Your task to perform on an android device: Empty the shopping cart on target.com. Add "duracell triple a" to the cart on target.com Image 0: 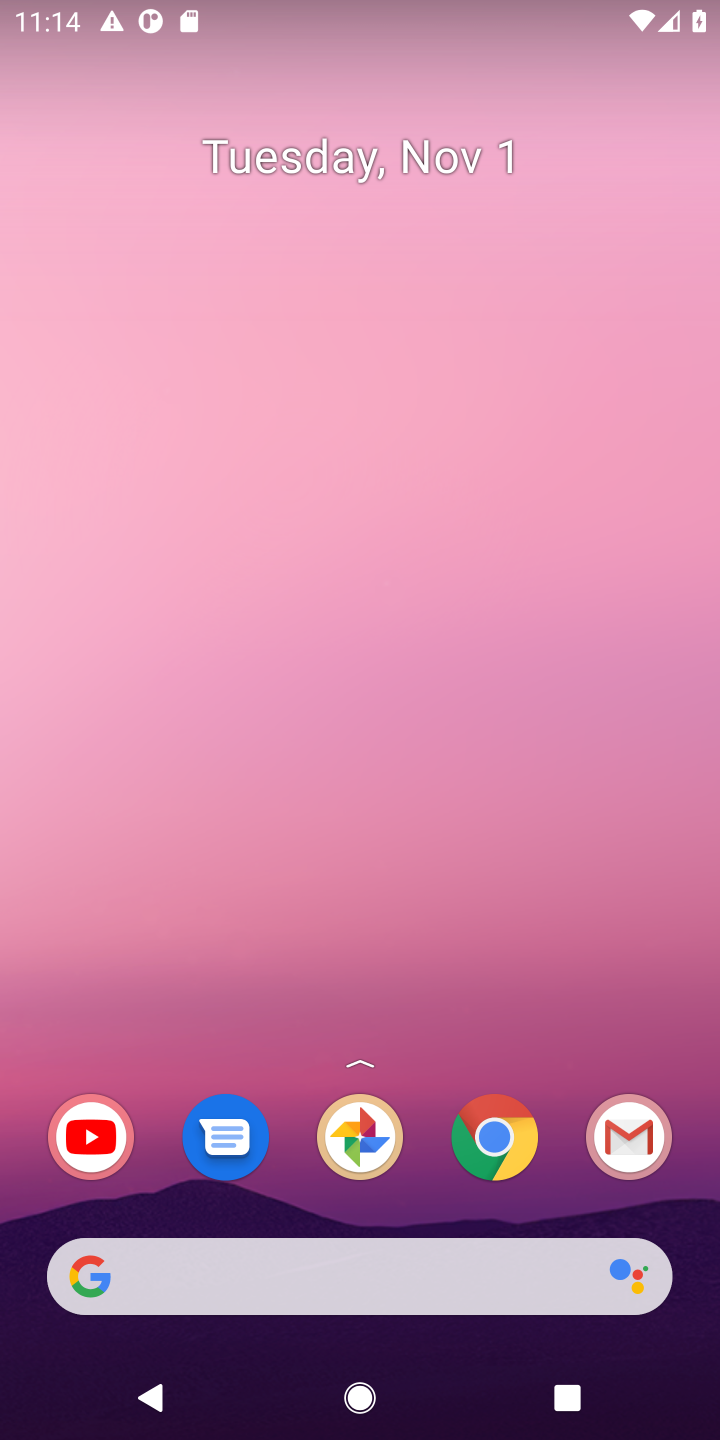
Step 0: drag from (299, 1137) to (235, 159)
Your task to perform on an android device: Empty the shopping cart on target.com. Add "duracell triple a" to the cart on target.com Image 1: 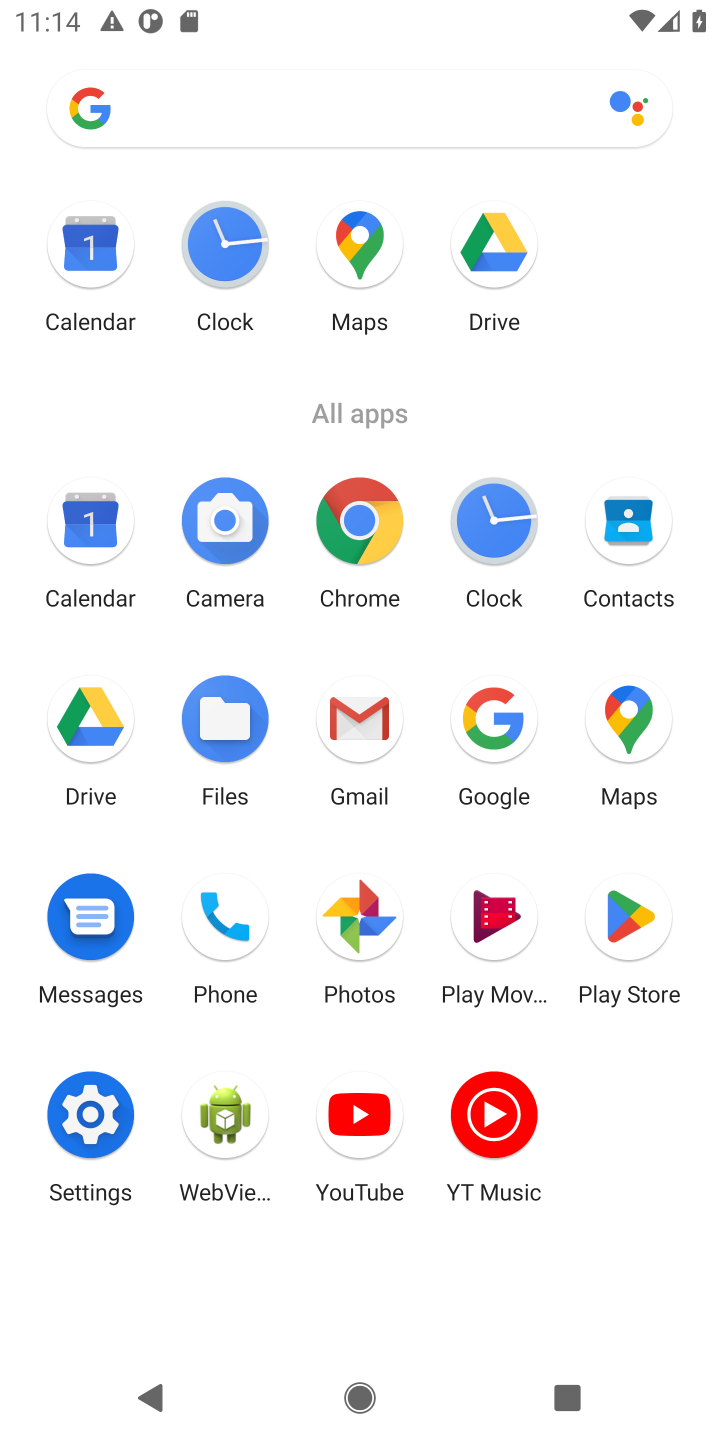
Step 1: click (491, 741)
Your task to perform on an android device: Empty the shopping cart on target.com. Add "duracell triple a" to the cart on target.com Image 2: 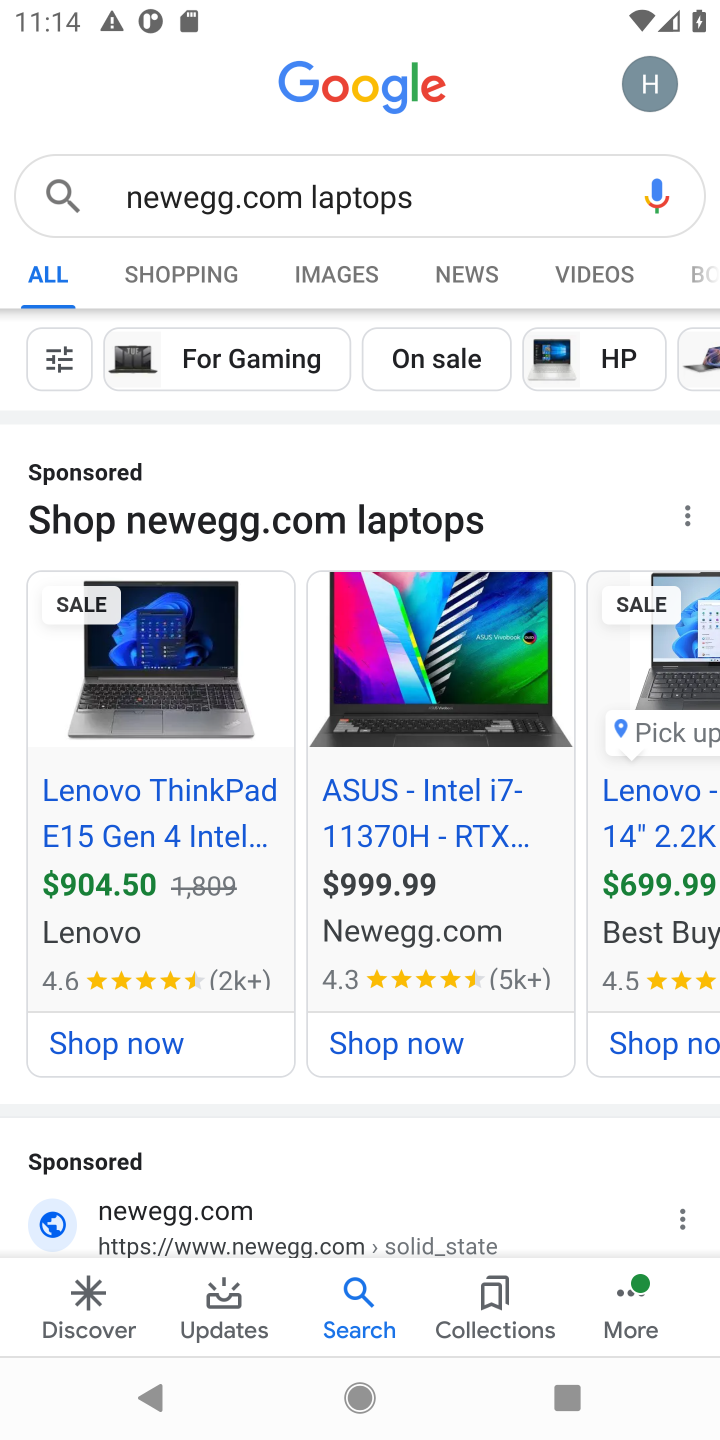
Step 2: click (418, 184)
Your task to perform on an android device: Empty the shopping cart on target.com. Add "duracell triple a" to the cart on target.com Image 3: 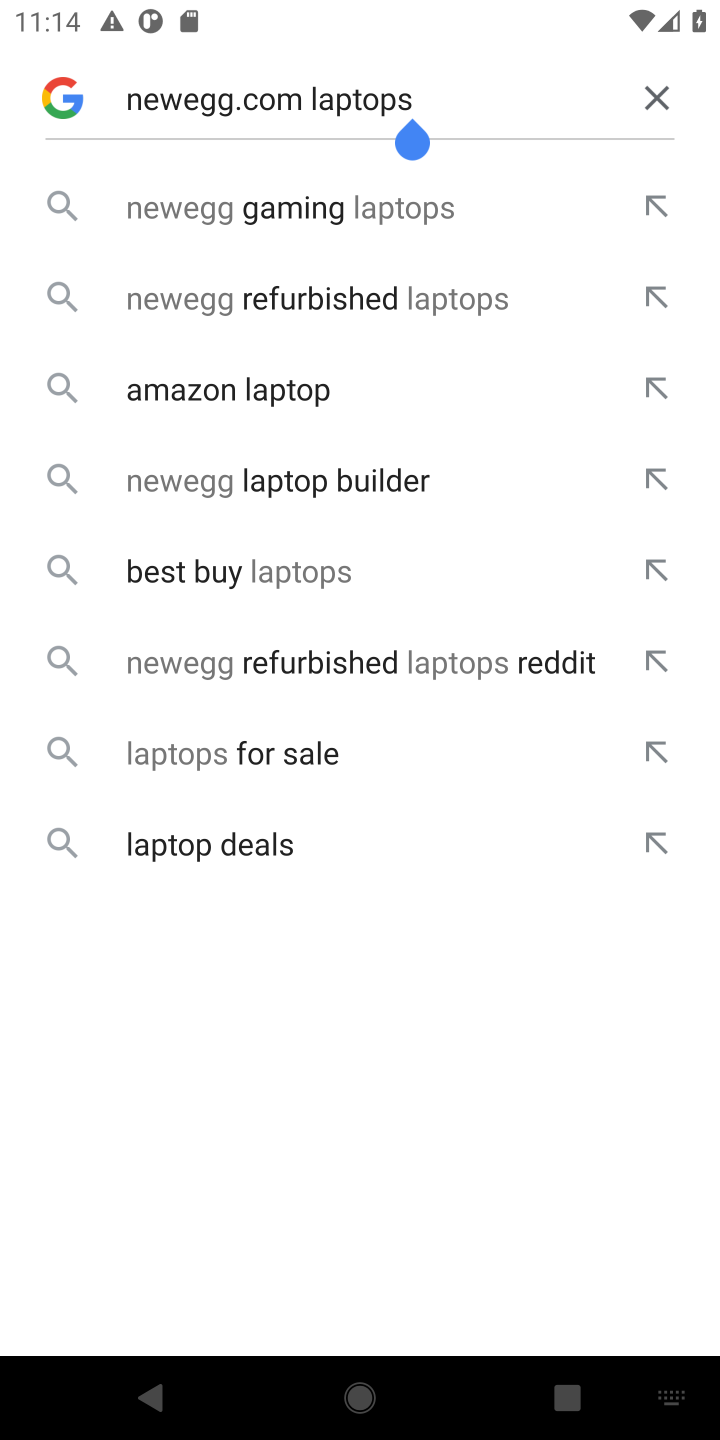
Step 3: click (638, 98)
Your task to perform on an android device: Empty the shopping cart on target.com. Add "duracell triple a" to the cart on target.com Image 4: 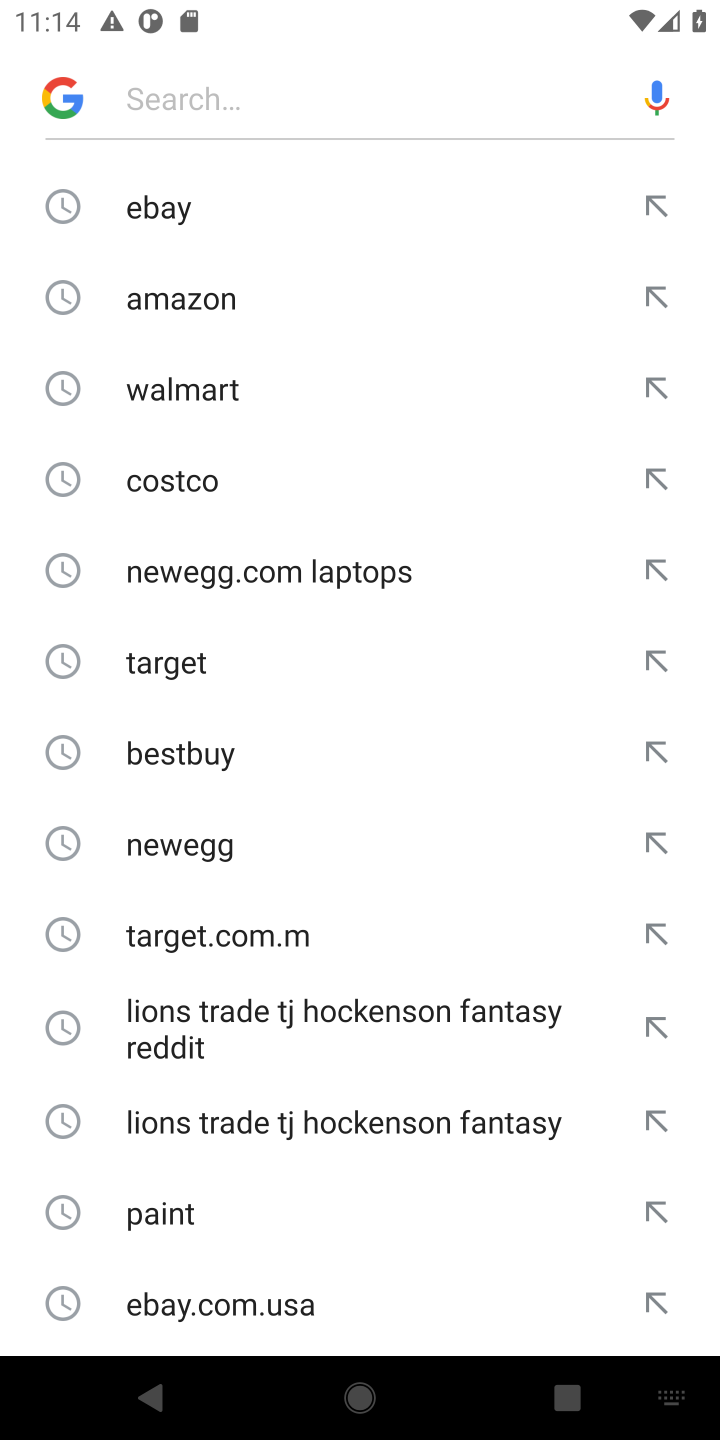
Step 4: click (142, 677)
Your task to perform on an android device: Empty the shopping cart on target.com. Add "duracell triple a" to the cart on target.com Image 5: 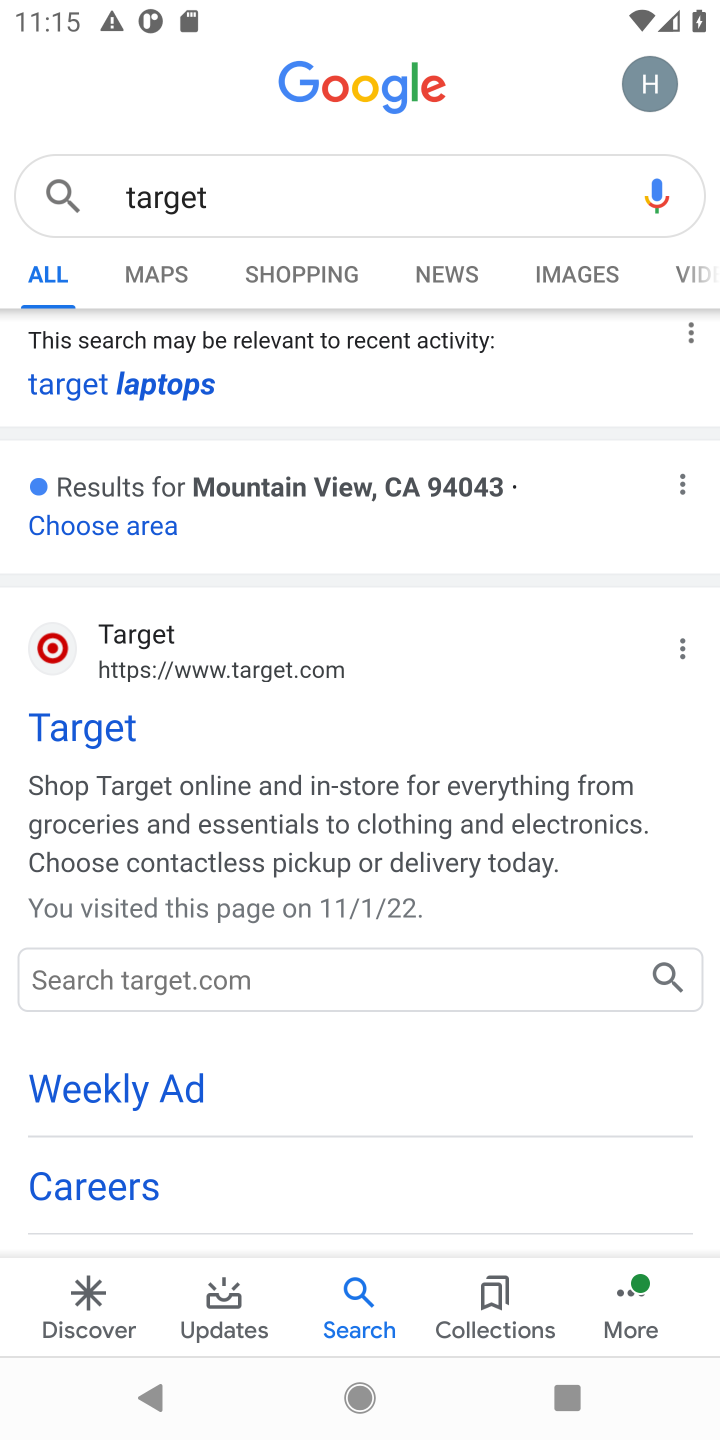
Step 5: click (80, 725)
Your task to perform on an android device: Empty the shopping cart on target.com. Add "duracell triple a" to the cart on target.com Image 6: 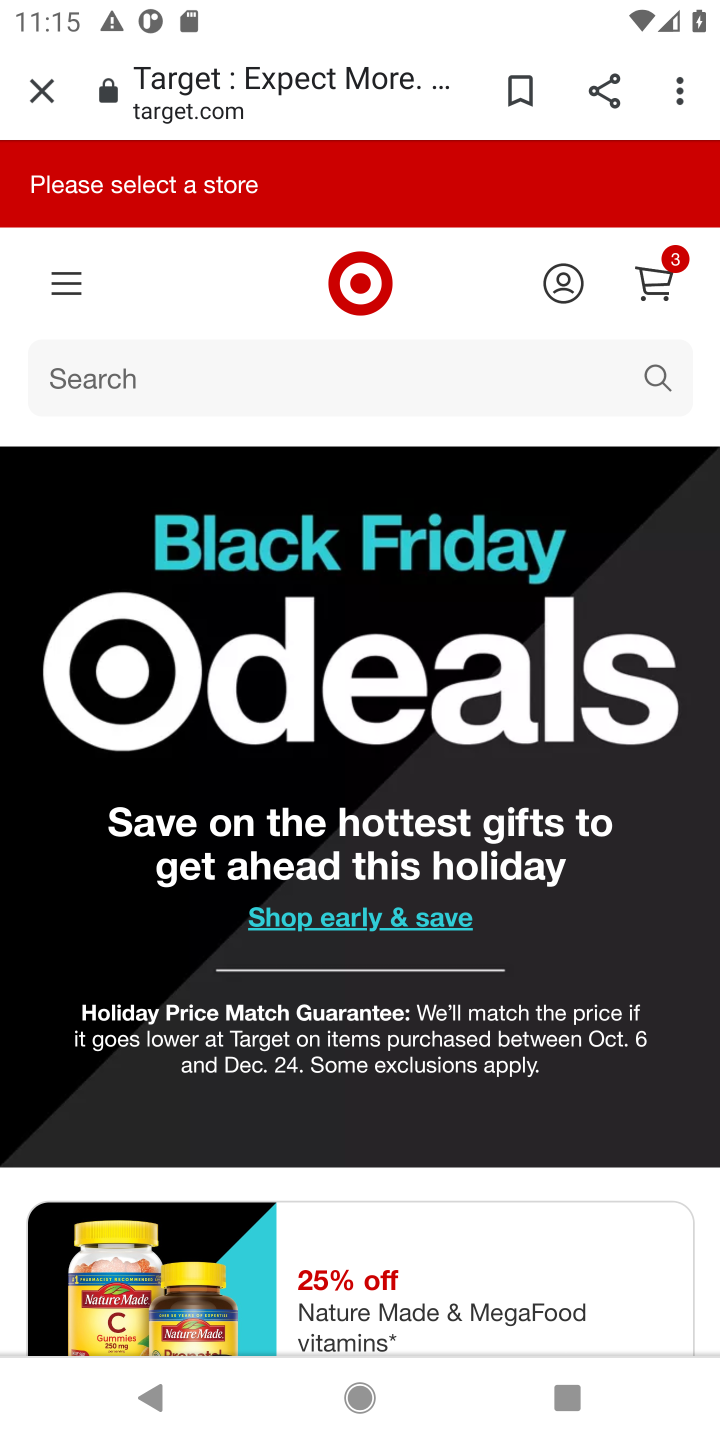
Step 6: click (350, 382)
Your task to perform on an android device: Empty the shopping cart on target.com. Add "duracell triple a" to the cart on target.com Image 7: 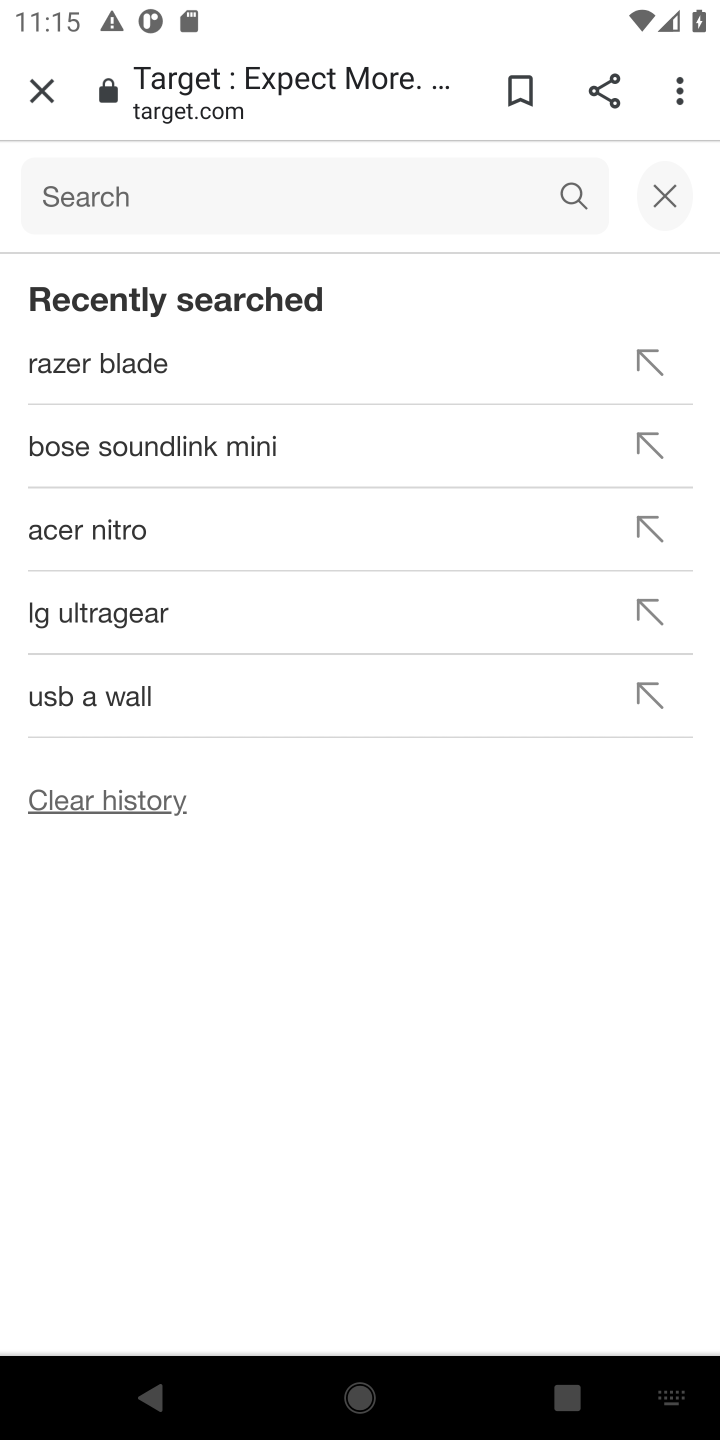
Step 7: type "duracell triple a""
Your task to perform on an android device: Empty the shopping cart on target.com. Add "duracell triple a" to the cart on target.com Image 8: 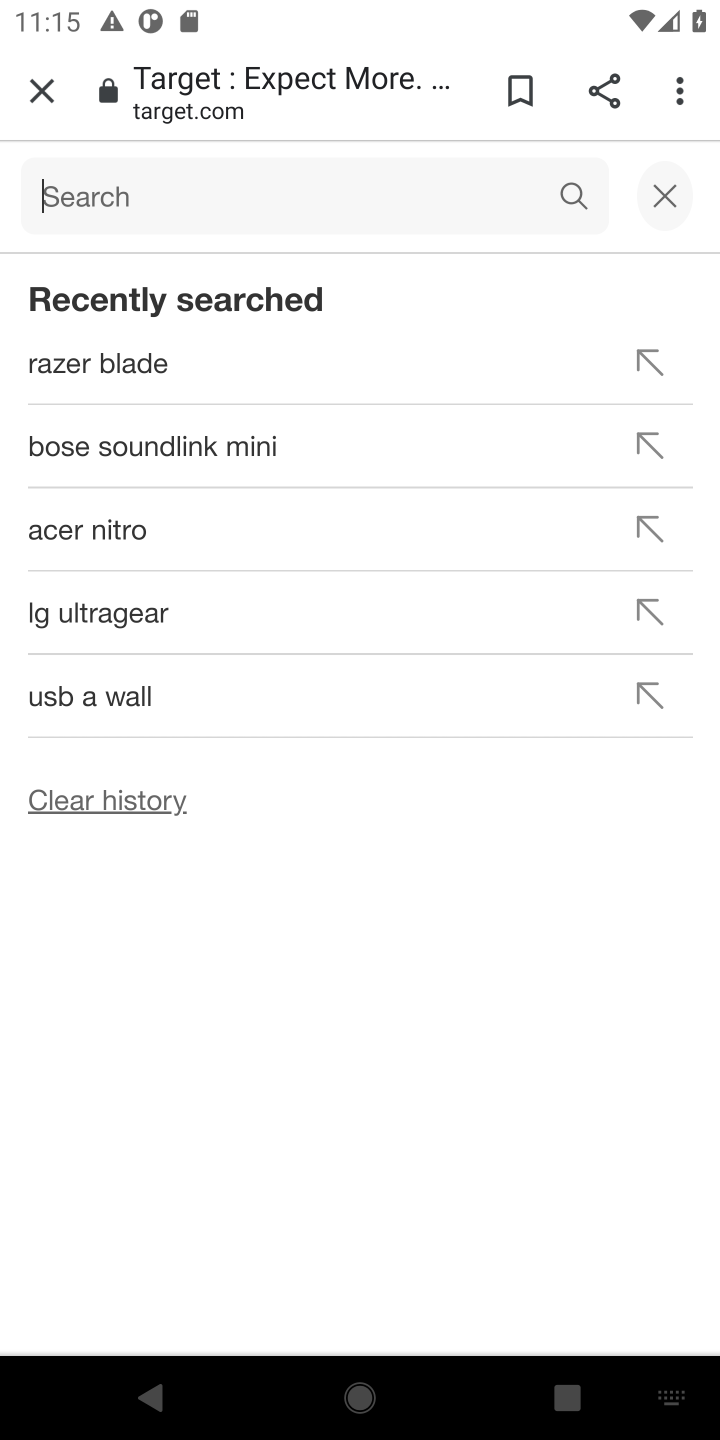
Step 8: type "duracell triple a"
Your task to perform on an android device: Empty the shopping cart on target.com. Add "duracell triple a" to the cart on target.com Image 9: 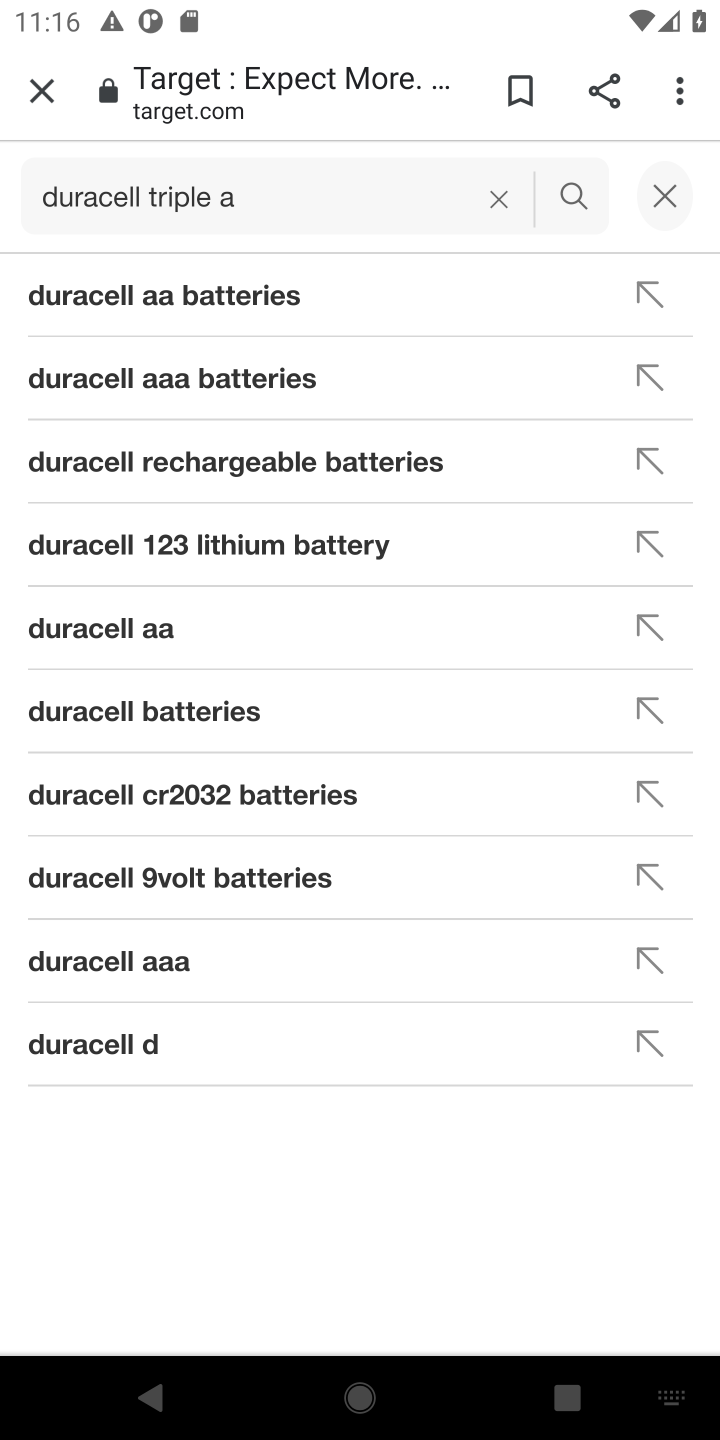
Step 9: click (105, 298)
Your task to perform on an android device: Empty the shopping cart on target.com. Add "duracell triple a" to the cart on target.com Image 10: 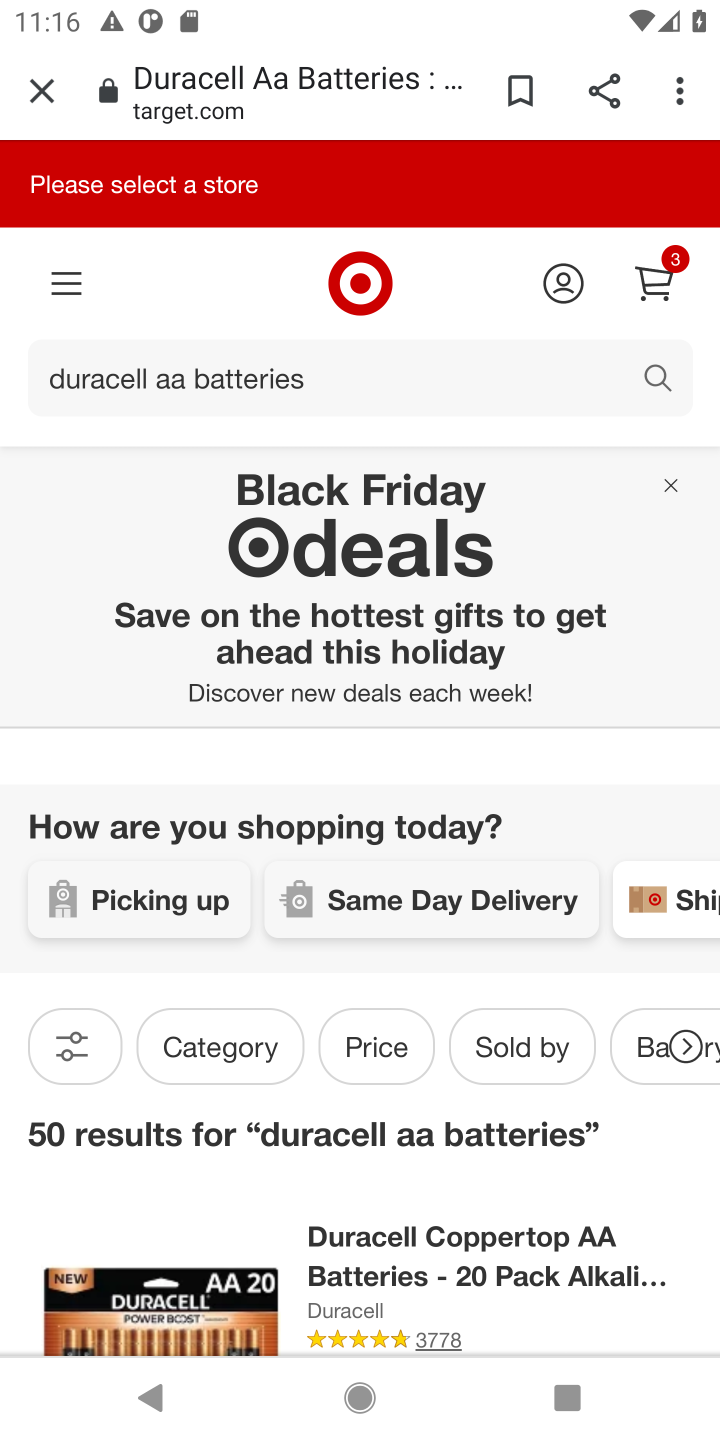
Step 10: drag from (375, 1133) to (367, 914)
Your task to perform on an android device: Empty the shopping cart on target.com. Add "duracell triple a" to the cart on target.com Image 11: 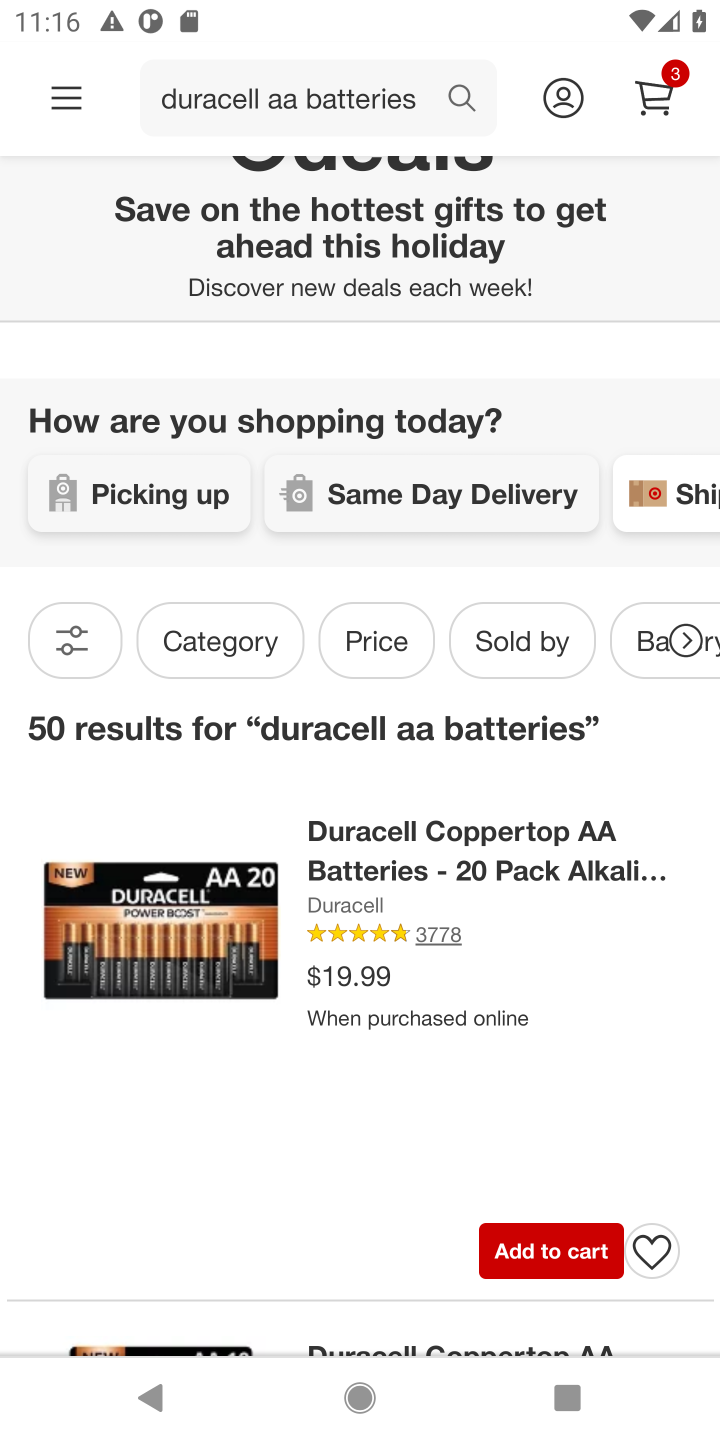
Step 11: click (543, 1252)
Your task to perform on an android device: Empty the shopping cart on target.com. Add "duracell triple a" to the cart on target.com Image 12: 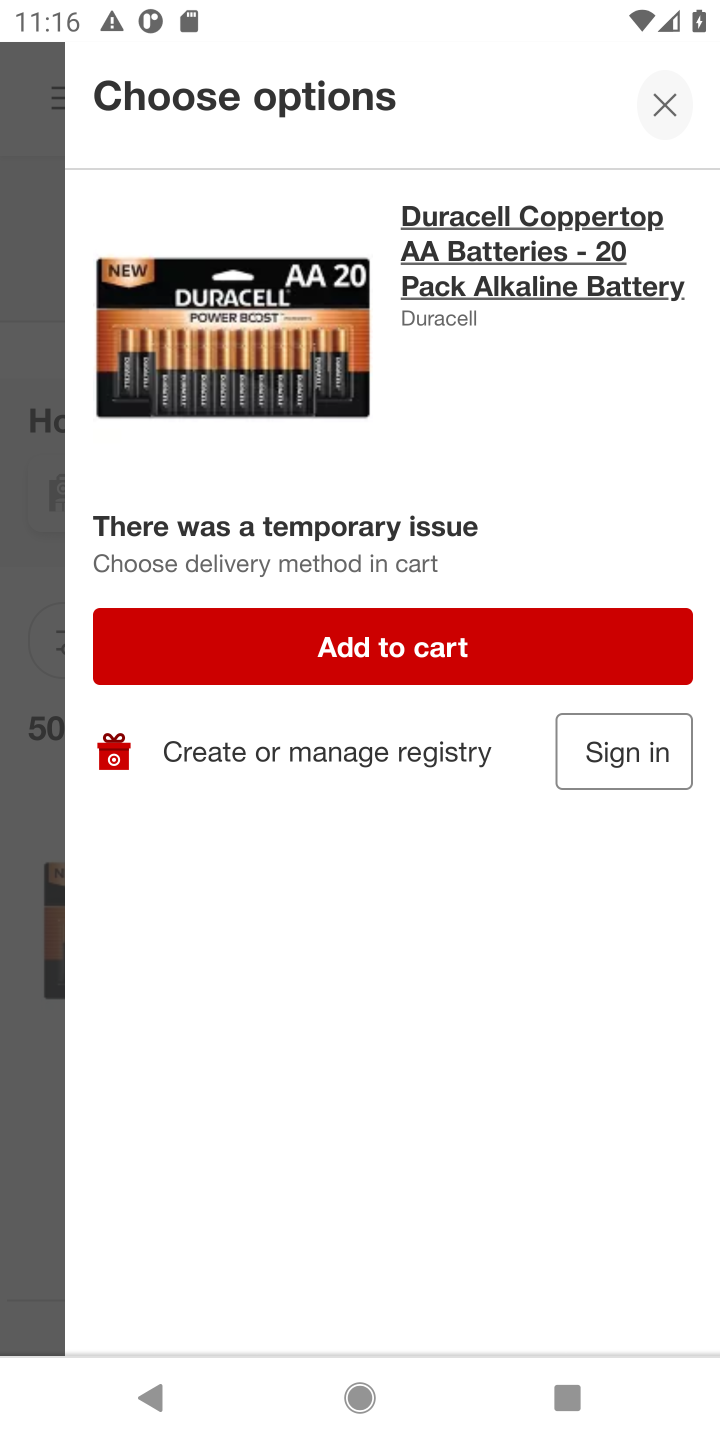
Step 12: click (361, 642)
Your task to perform on an android device: Empty the shopping cart on target.com. Add "duracell triple a" to the cart on target.com Image 13: 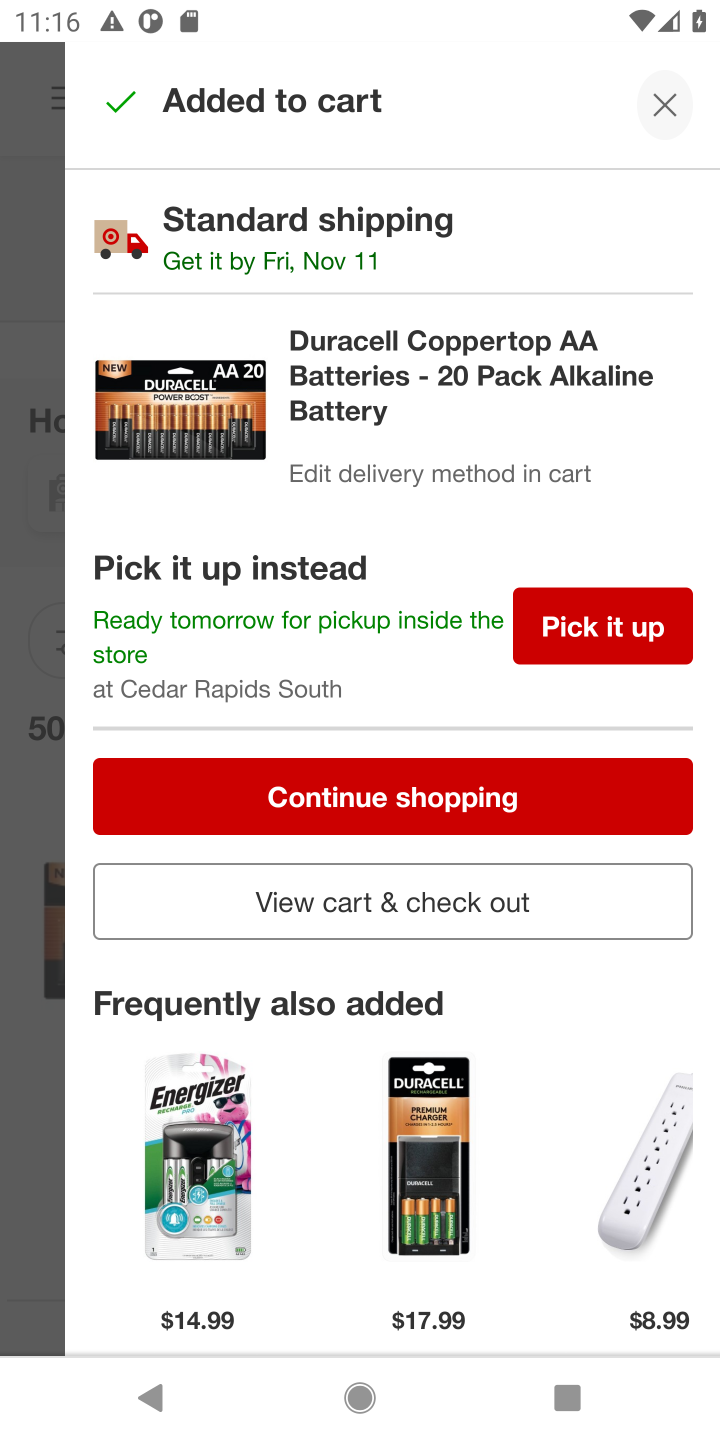
Step 13: task complete